Your task to perform on an android device: Open Google Chrome and click the shortcut for Amazon.com Image 0: 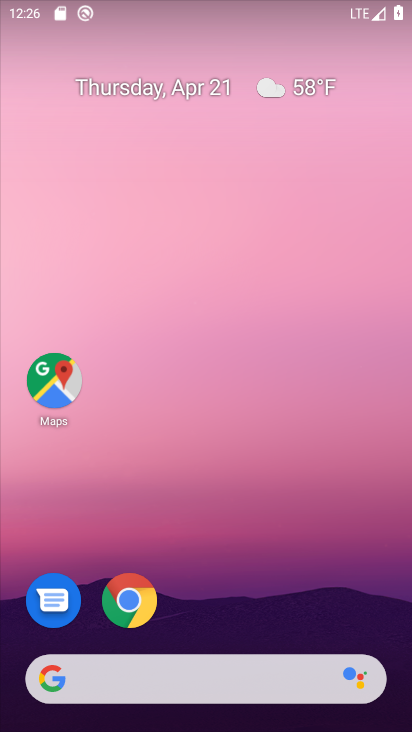
Step 0: click (130, 588)
Your task to perform on an android device: Open Google Chrome and click the shortcut for Amazon.com Image 1: 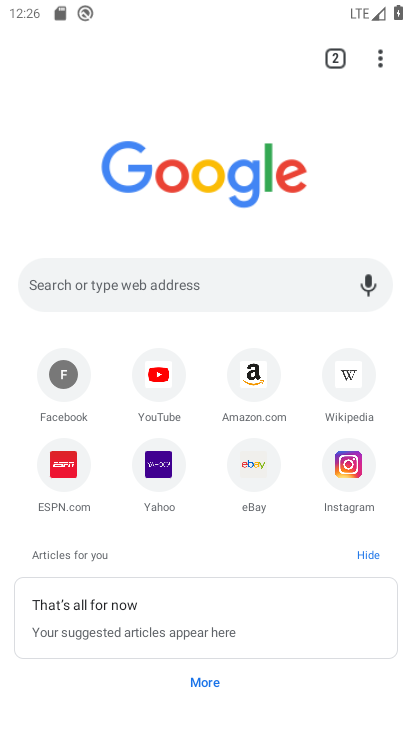
Step 1: click (256, 369)
Your task to perform on an android device: Open Google Chrome and click the shortcut for Amazon.com Image 2: 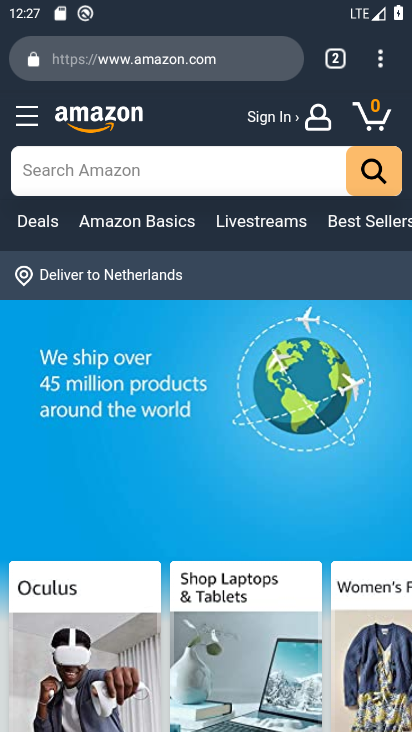
Step 2: task complete